Your task to perform on an android device: change notification settings in the gmail app Image 0: 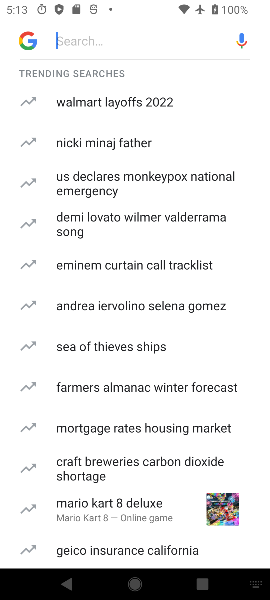
Step 0: press back button
Your task to perform on an android device: change notification settings in the gmail app Image 1: 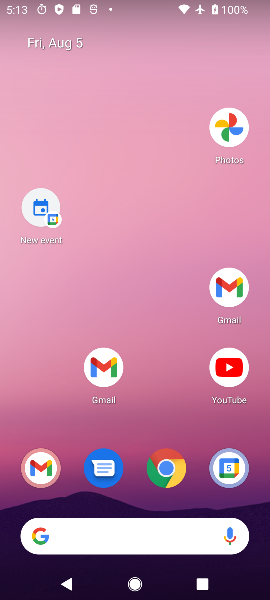
Step 1: drag from (180, 448) to (153, 165)
Your task to perform on an android device: change notification settings in the gmail app Image 2: 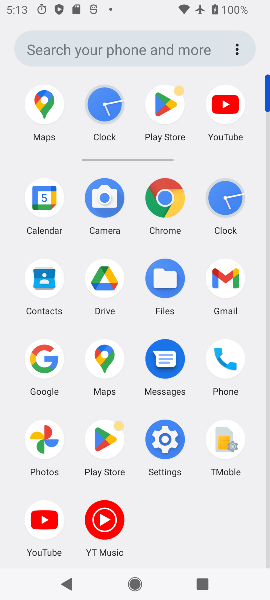
Step 2: click (154, 428)
Your task to perform on an android device: change notification settings in the gmail app Image 3: 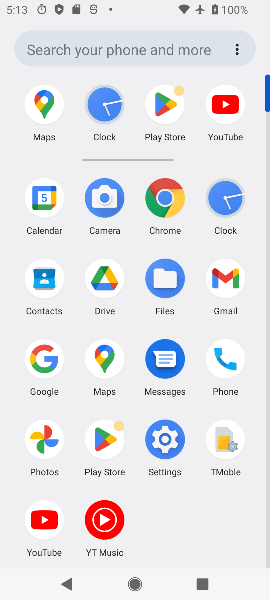
Step 3: drag from (148, 427) to (179, 427)
Your task to perform on an android device: change notification settings in the gmail app Image 4: 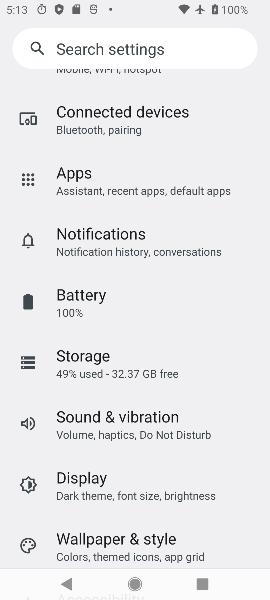
Step 4: click (97, 246)
Your task to perform on an android device: change notification settings in the gmail app Image 5: 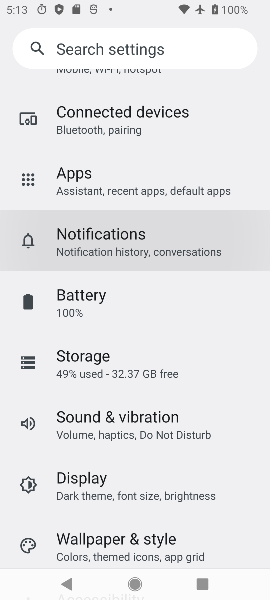
Step 5: click (98, 245)
Your task to perform on an android device: change notification settings in the gmail app Image 6: 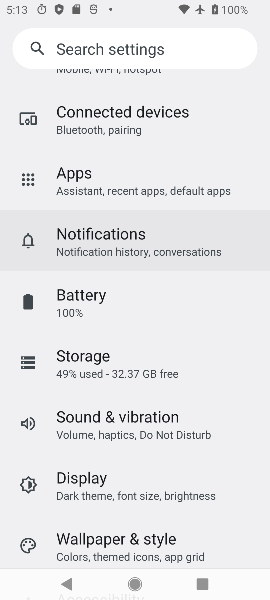
Step 6: click (98, 244)
Your task to perform on an android device: change notification settings in the gmail app Image 7: 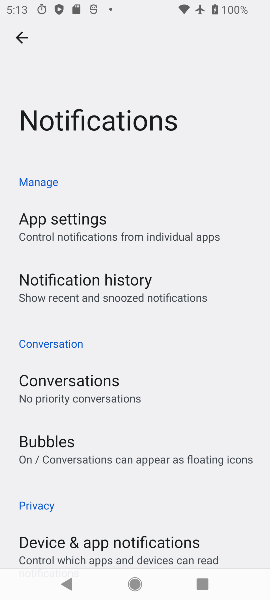
Step 7: drag from (74, 483) to (54, 202)
Your task to perform on an android device: change notification settings in the gmail app Image 8: 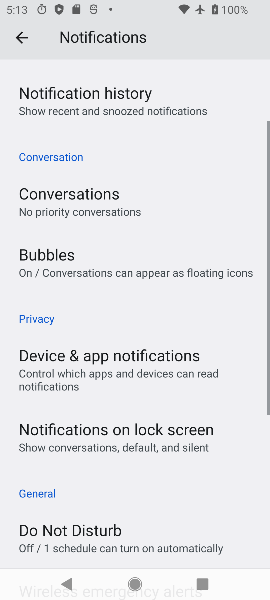
Step 8: drag from (99, 425) to (74, 197)
Your task to perform on an android device: change notification settings in the gmail app Image 9: 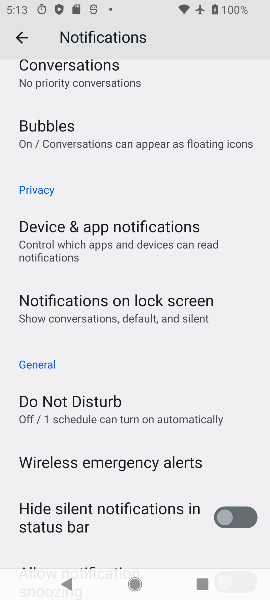
Step 9: click (20, 25)
Your task to perform on an android device: change notification settings in the gmail app Image 10: 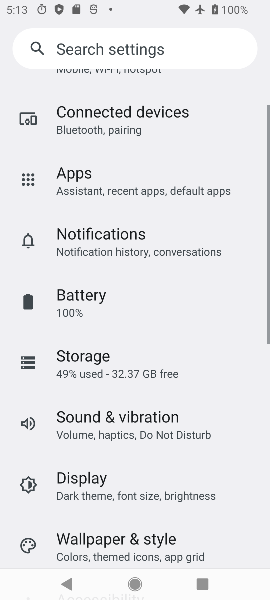
Step 10: press back button
Your task to perform on an android device: change notification settings in the gmail app Image 11: 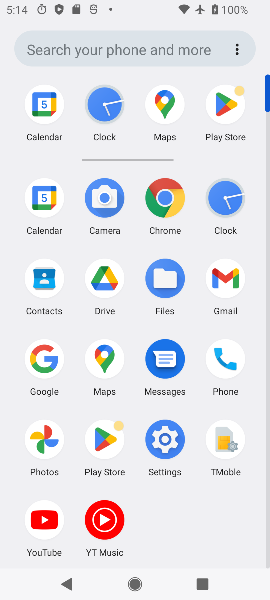
Step 11: click (222, 270)
Your task to perform on an android device: change notification settings in the gmail app Image 12: 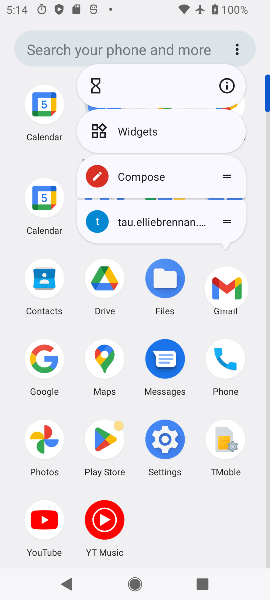
Step 12: click (224, 283)
Your task to perform on an android device: change notification settings in the gmail app Image 13: 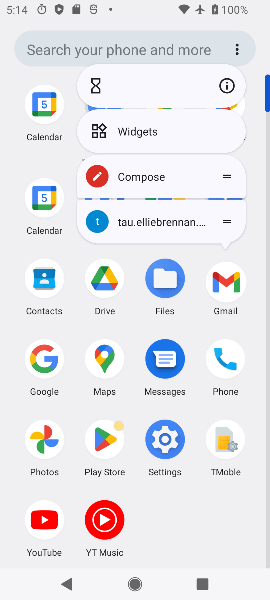
Step 13: click (224, 283)
Your task to perform on an android device: change notification settings in the gmail app Image 14: 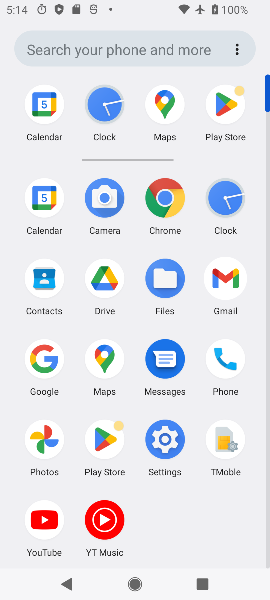
Step 14: click (225, 285)
Your task to perform on an android device: change notification settings in the gmail app Image 15: 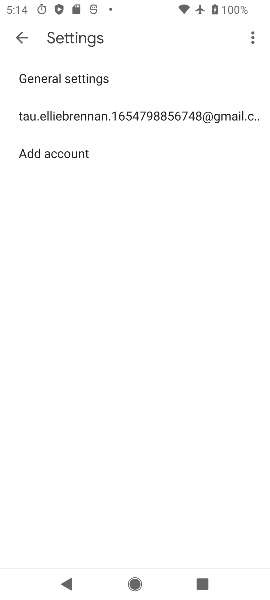
Step 15: click (225, 285)
Your task to perform on an android device: change notification settings in the gmail app Image 16: 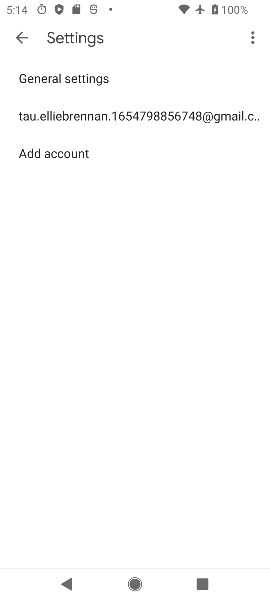
Step 16: click (228, 285)
Your task to perform on an android device: change notification settings in the gmail app Image 17: 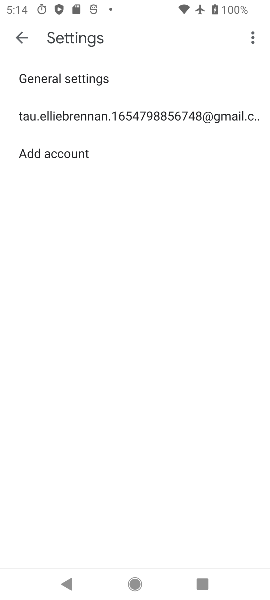
Step 17: click (80, 120)
Your task to perform on an android device: change notification settings in the gmail app Image 18: 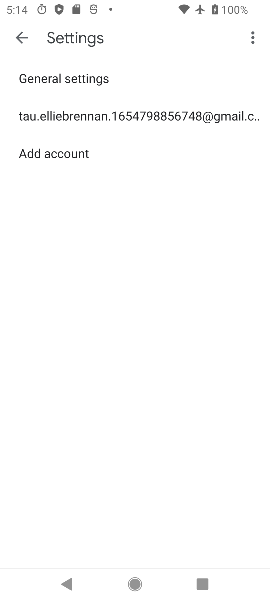
Step 18: click (80, 120)
Your task to perform on an android device: change notification settings in the gmail app Image 19: 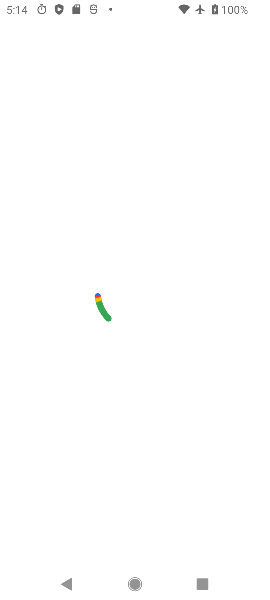
Step 19: press back button
Your task to perform on an android device: change notification settings in the gmail app Image 20: 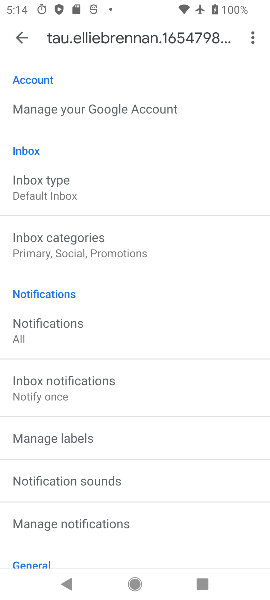
Step 20: click (33, 320)
Your task to perform on an android device: change notification settings in the gmail app Image 21: 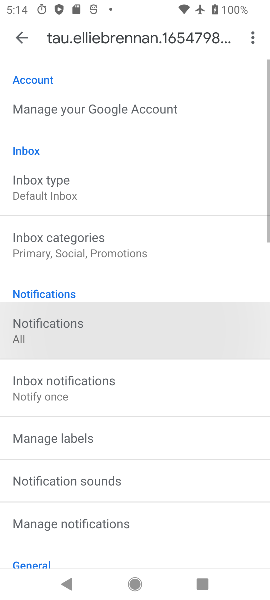
Step 21: click (33, 320)
Your task to perform on an android device: change notification settings in the gmail app Image 22: 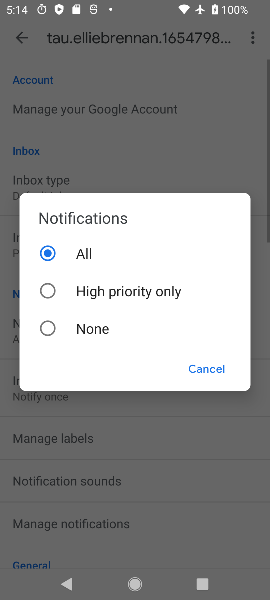
Step 22: click (46, 287)
Your task to perform on an android device: change notification settings in the gmail app Image 23: 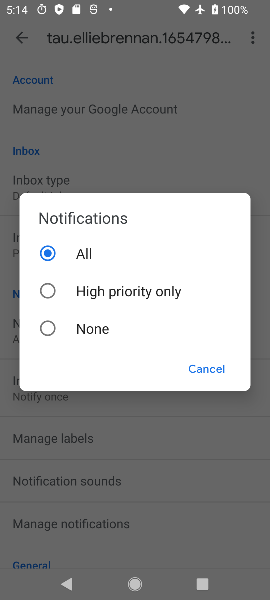
Step 23: click (46, 287)
Your task to perform on an android device: change notification settings in the gmail app Image 24: 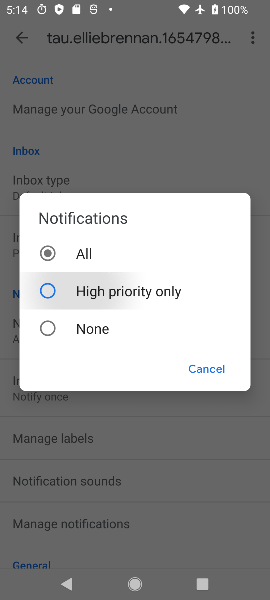
Step 24: click (46, 287)
Your task to perform on an android device: change notification settings in the gmail app Image 25: 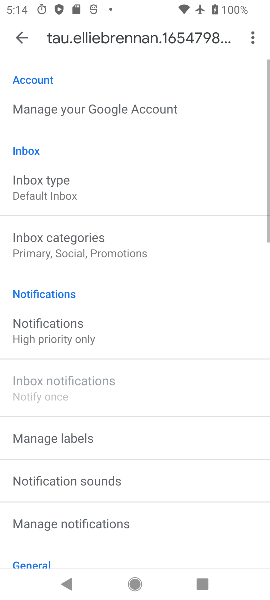
Step 25: click (46, 287)
Your task to perform on an android device: change notification settings in the gmail app Image 26: 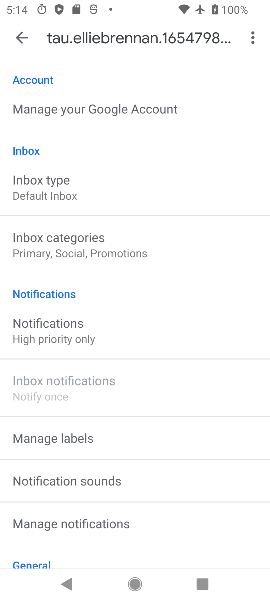
Step 26: task complete